Your task to perform on an android device: toggle show notifications on the lock screen Image 0: 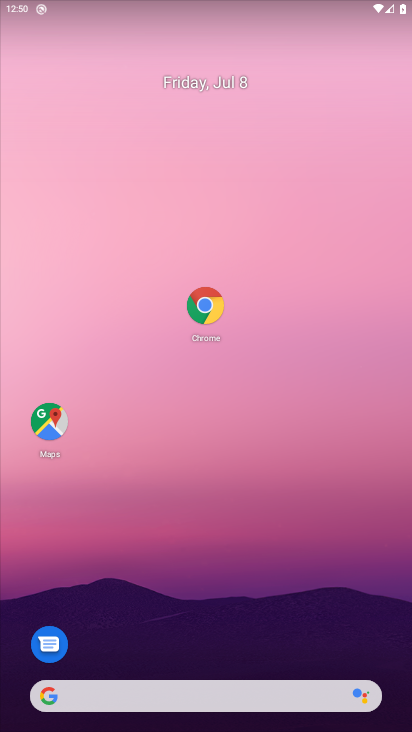
Step 0: drag from (210, 603) to (197, 294)
Your task to perform on an android device: toggle show notifications on the lock screen Image 1: 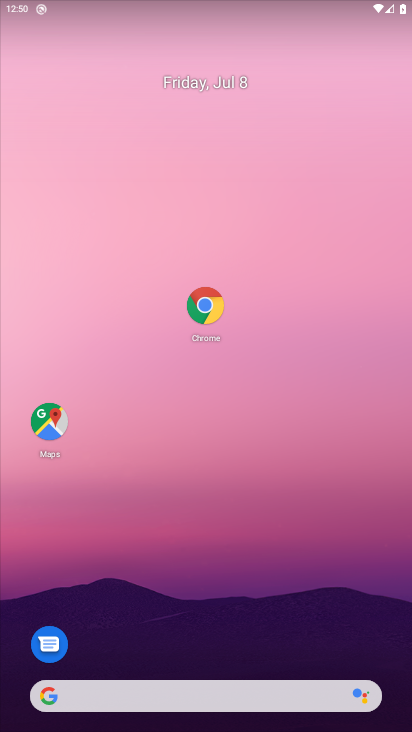
Step 1: drag from (177, 671) to (194, 219)
Your task to perform on an android device: toggle show notifications on the lock screen Image 2: 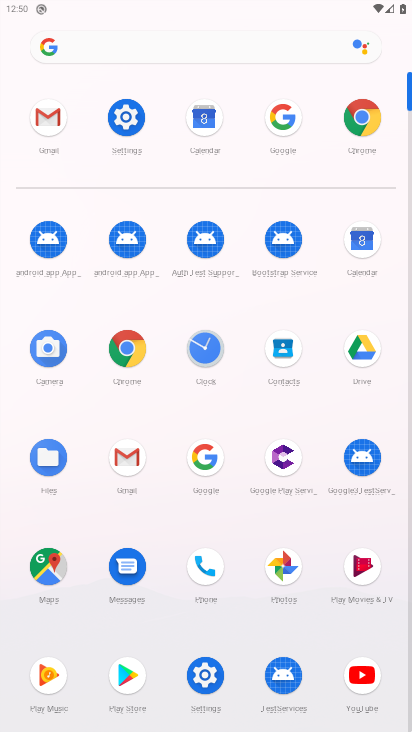
Step 2: click (123, 118)
Your task to perform on an android device: toggle show notifications on the lock screen Image 3: 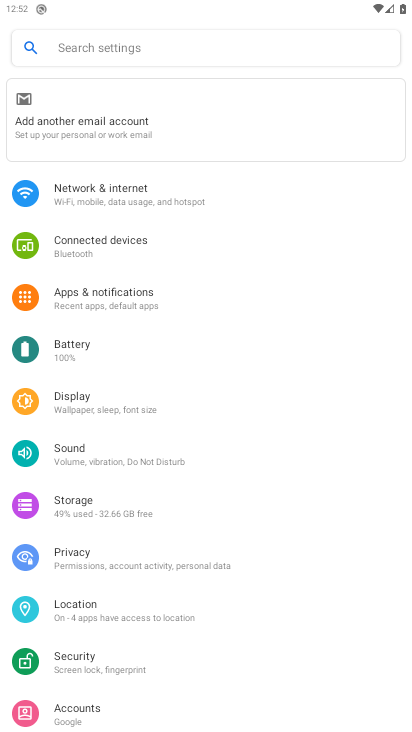
Step 3: click (75, 555)
Your task to perform on an android device: toggle show notifications on the lock screen Image 4: 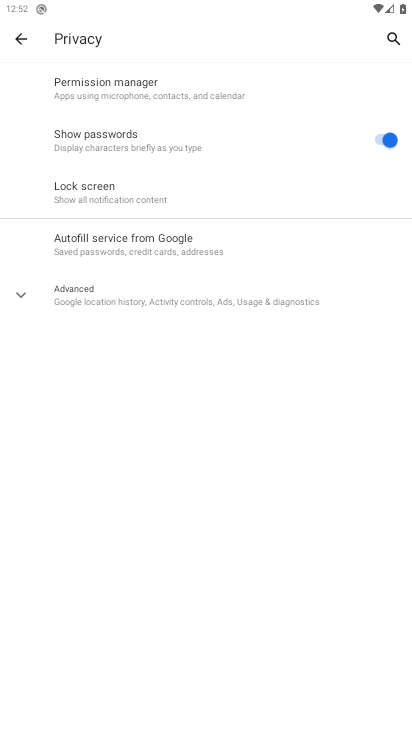
Step 4: click (83, 287)
Your task to perform on an android device: toggle show notifications on the lock screen Image 5: 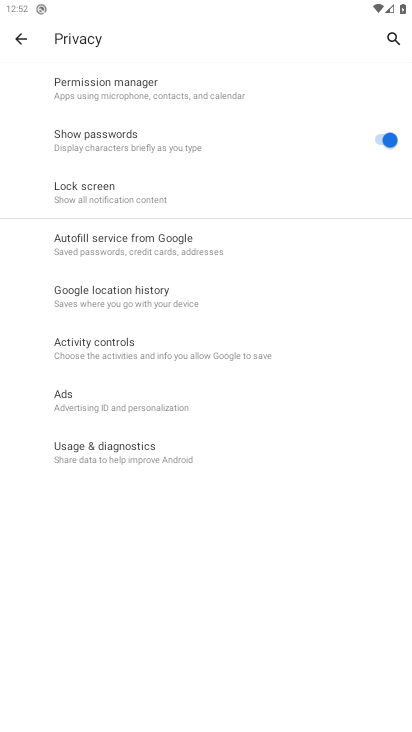
Step 5: click (71, 187)
Your task to perform on an android device: toggle show notifications on the lock screen Image 6: 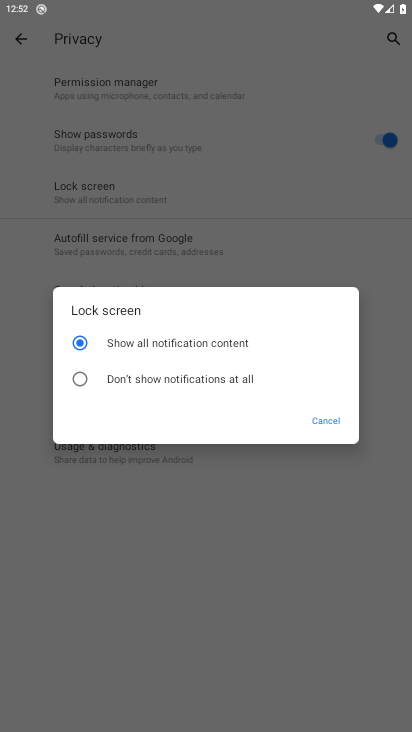
Step 6: click (160, 379)
Your task to perform on an android device: toggle show notifications on the lock screen Image 7: 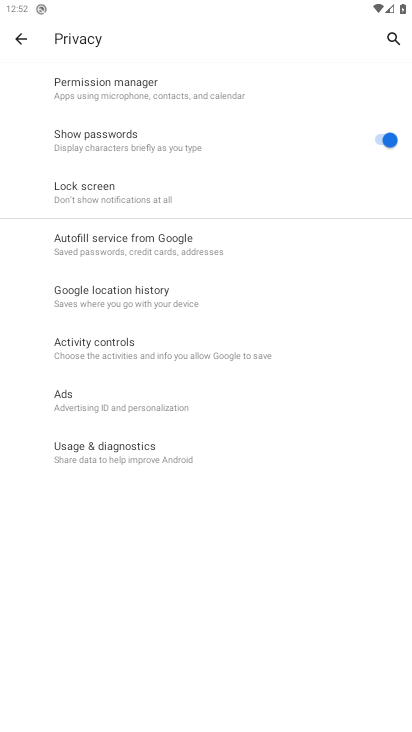
Step 7: task complete